Your task to perform on an android device: Go to network settings Image 0: 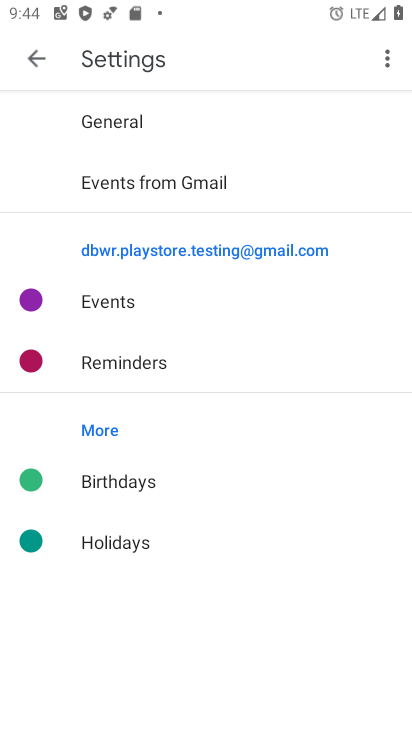
Step 0: press home button
Your task to perform on an android device: Go to network settings Image 1: 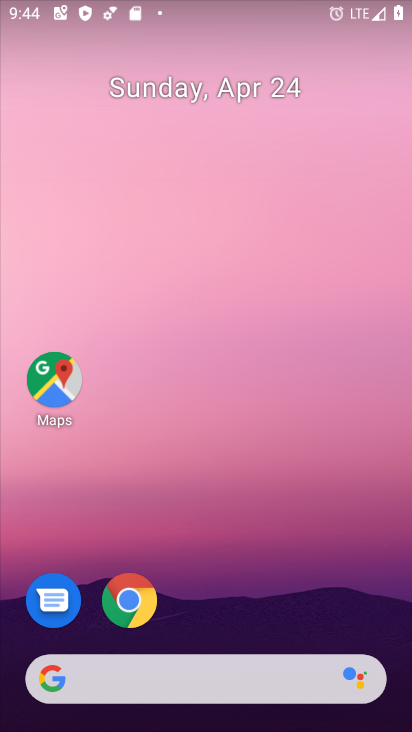
Step 1: drag from (214, 605) to (308, 4)
Your task to perform on an android device: Go to network settings Image 2: 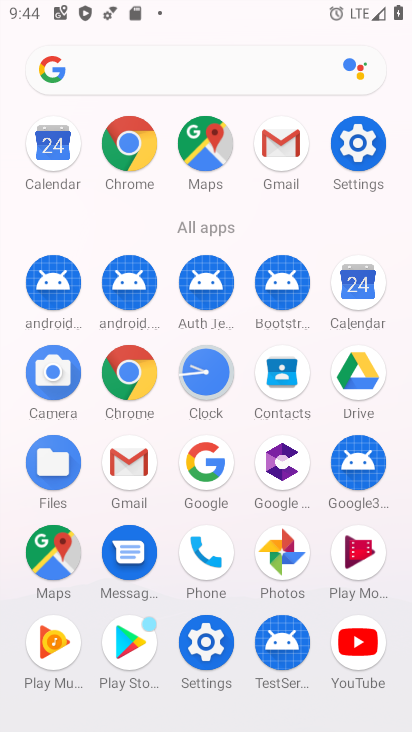
Step 2: click (371, 174)
Your task to perform on an android device: Go to network settings Image 3: 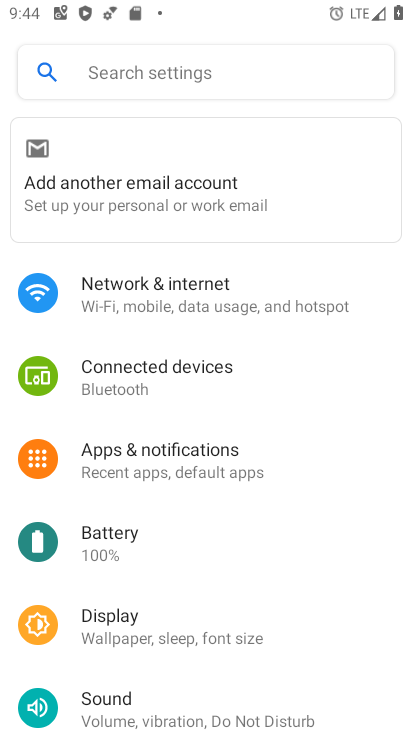
Step 3: click (206, 297)
Your task to perform on an android device: Go to network settings Image 4: 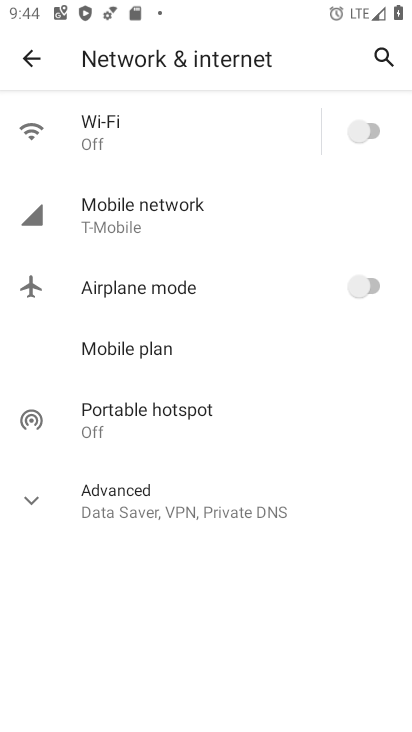
Step 4: task complete